Your task to perform on an android device: Go to location settings Image 0: 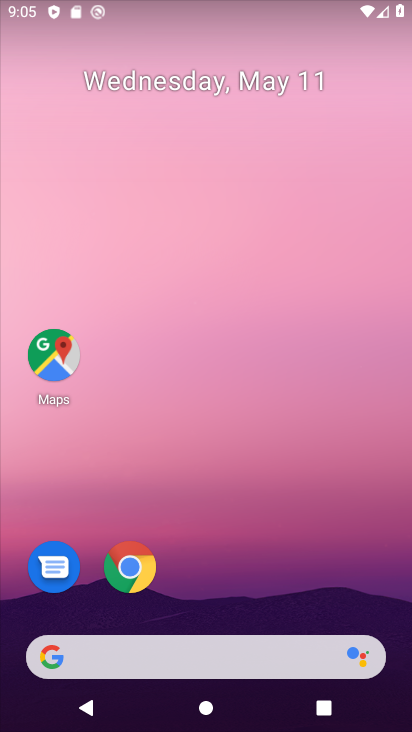
Step 0: drag from (264, 698) to (166, 64)
Your task to perform on an android device: Go to location settings Image 1: 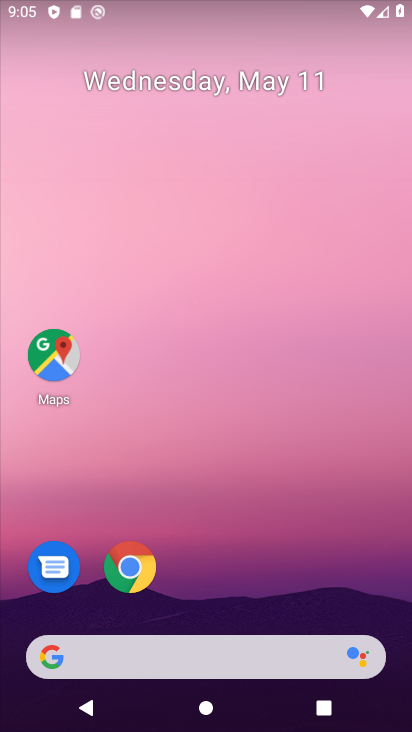
Step 1: drag from (266, 713) to (321, 6)
Your task to perform on an android device: Go to location settings Image 2: 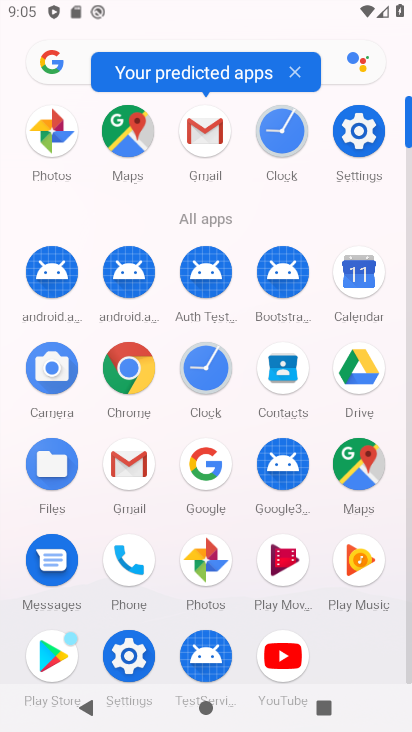
Step 2: click (368, 130)
Your task to perform on an android device: Go to location settings Image 3: 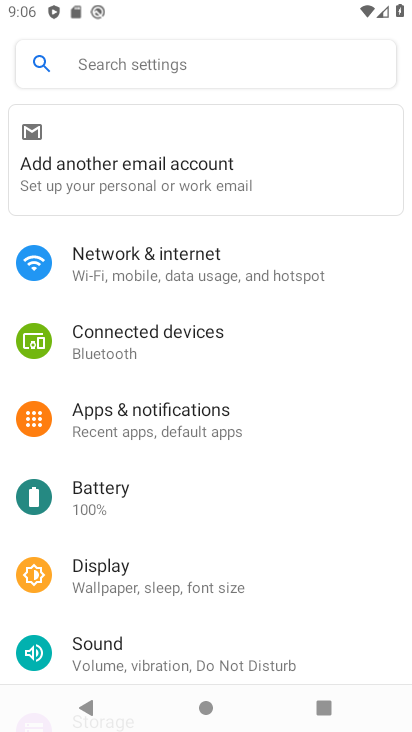
Step 3: drag from (331, 579) to (299, 180)
Your task to perform on an android device: Go to location settings Image 4: 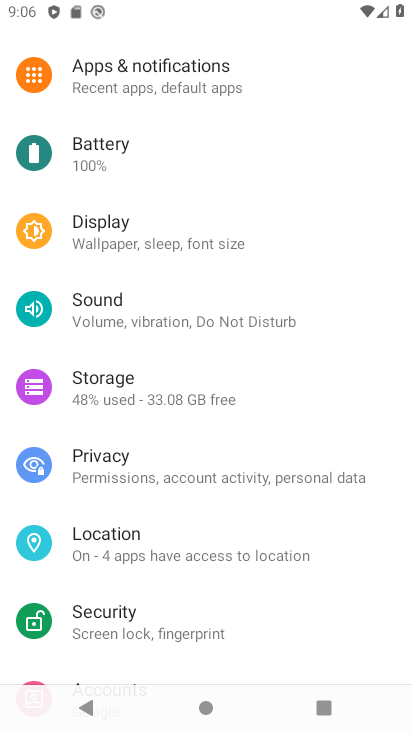
Step 4: click (102, 534)
Your task to perform on an android device: Go to location settings Image 5: 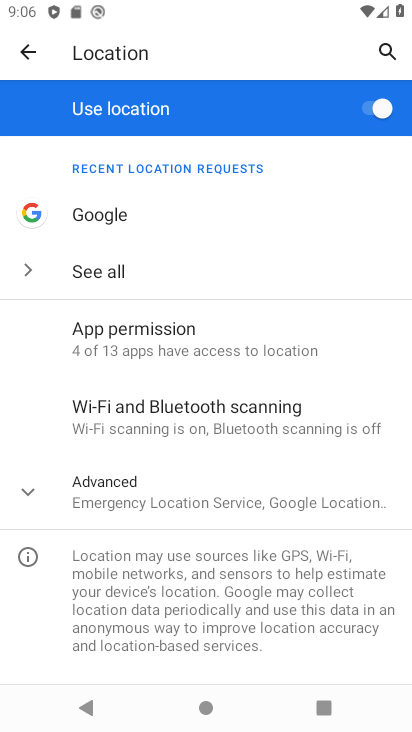
Step 5: task complete